Your task to perform on an android device: clear history in the chrome app Image 0: 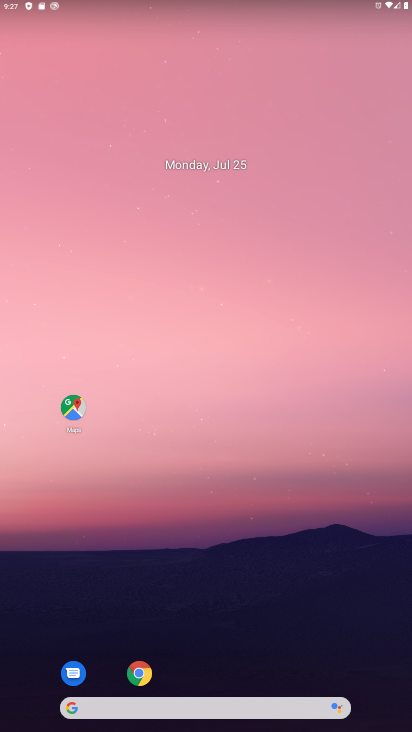
Step 0: click (151, 673)
Your task to perform on an android device: clear history in the chrome app Image 1: 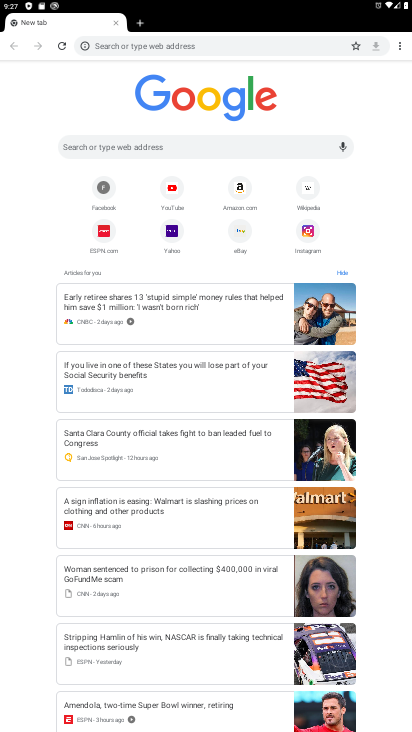
Step 1: click (397, 49)
Your task to perform on an android device: clear history in the chrome app Image 2: 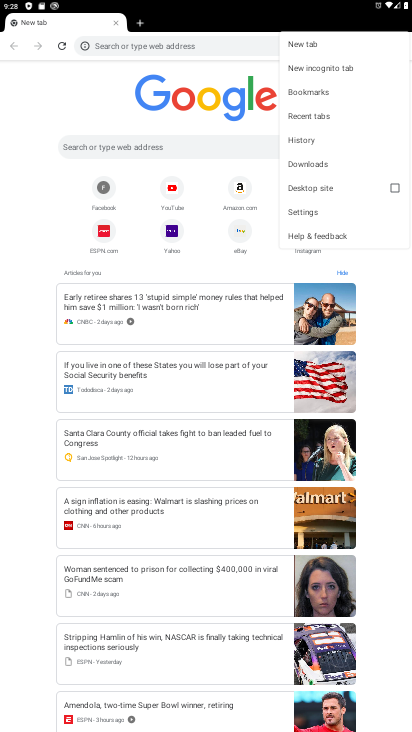
Step 2: click (310, 210)
Your task to perform on an android device: clear history in the chrome app Image 3: 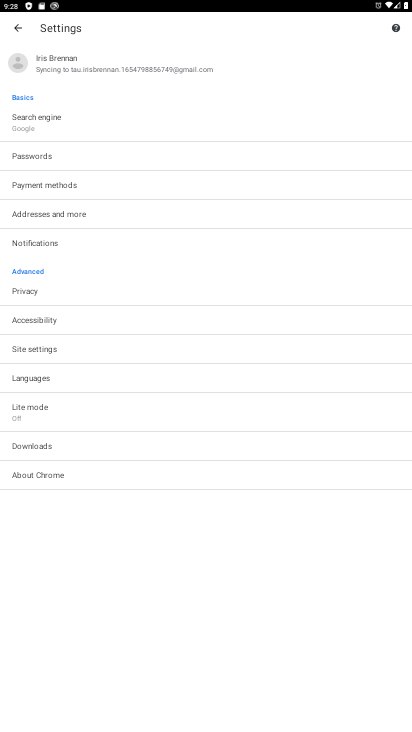
Step 3: click (37, 291)
Your task to perform on an android device: clear history in the chrome app Image 4: 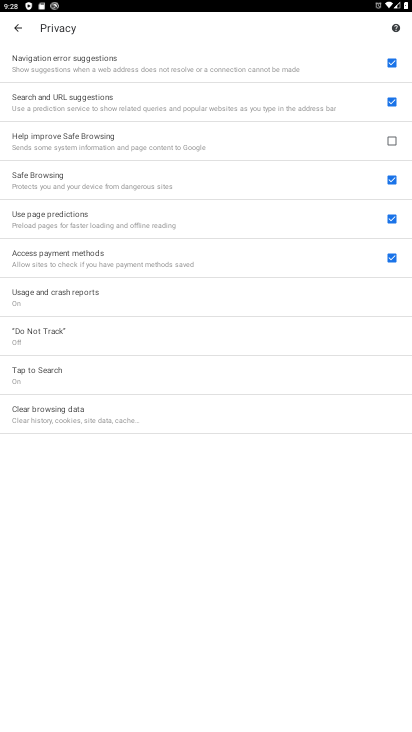
Step 4: click (69, 435)
Your task to perform on an android device: clear history in the chrome app Image 5: 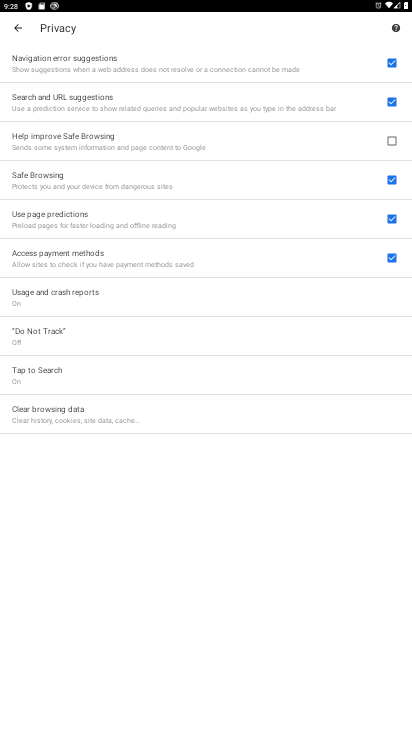
Step 5: click (55, 408)
Your task to perform on an android device: clear history in the chrome app Image 6: 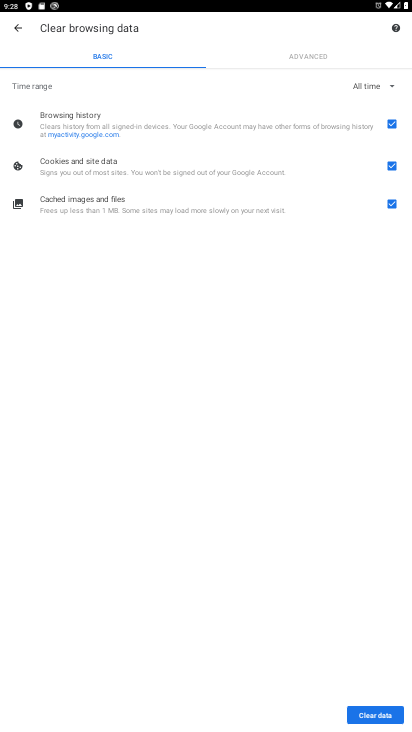
Step 6: click (367, 707)
Your task to perform on an android device: clear history in the chrome app Image 7: 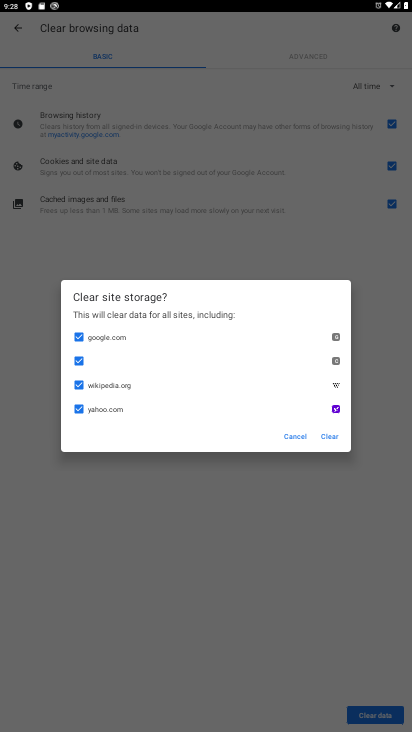
Step 7: click (335, 431)
Your task to perform on an android device: clear history in the chrome app Image 8: 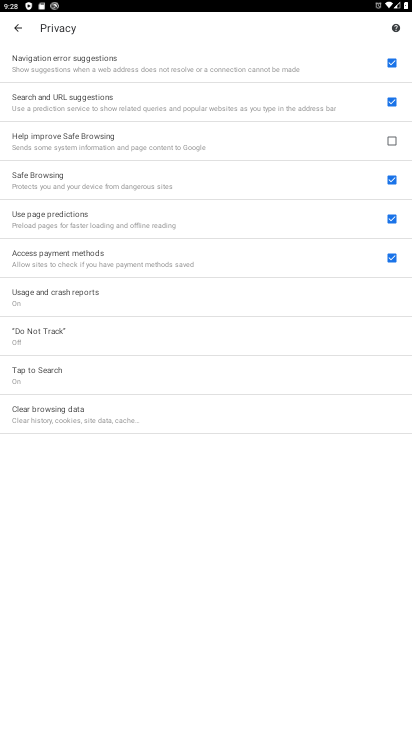
Step 8: task complete